Your task to perform on an android device: set an alarm Image 0: 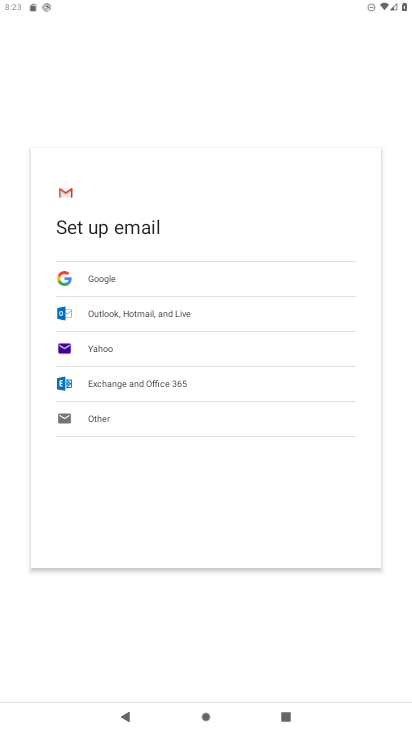
Step 0: press home button
Your task to perform on an android device: set an alarm Image 1: 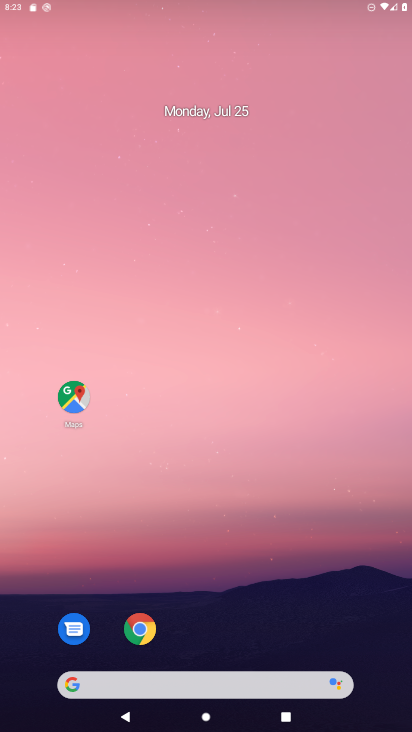
Step 1: drag from (263, 647) to (260, 79)
Your task to perform on an android device: set an alarm Image 2: 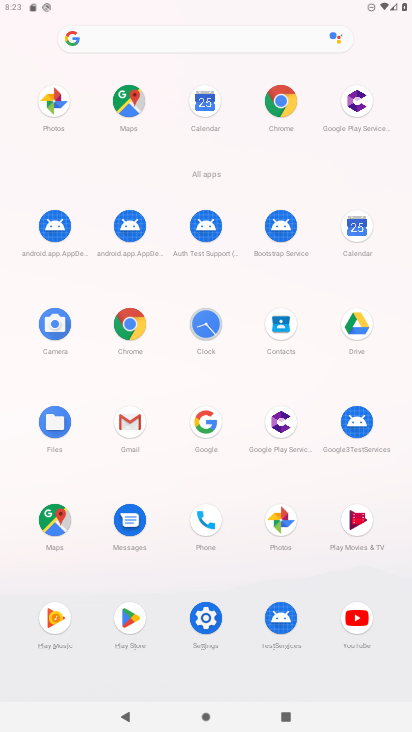
Step 2: click (198, 323)
Your task to perform on an android device: set an alarm Image 3: 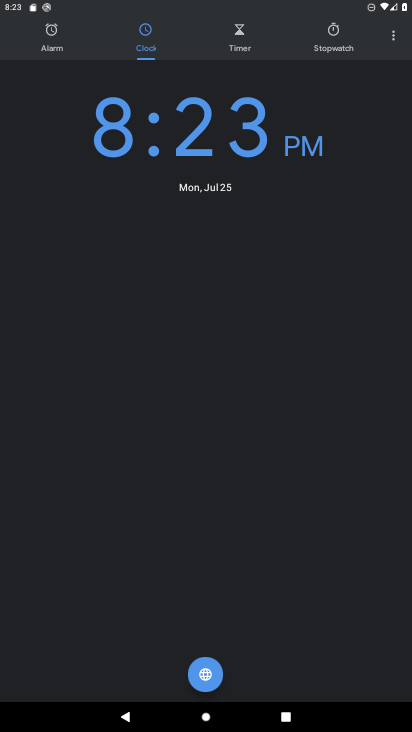
Step 3: click (46, 40)
Your task to perform on an android device: set an alarm Image 4: 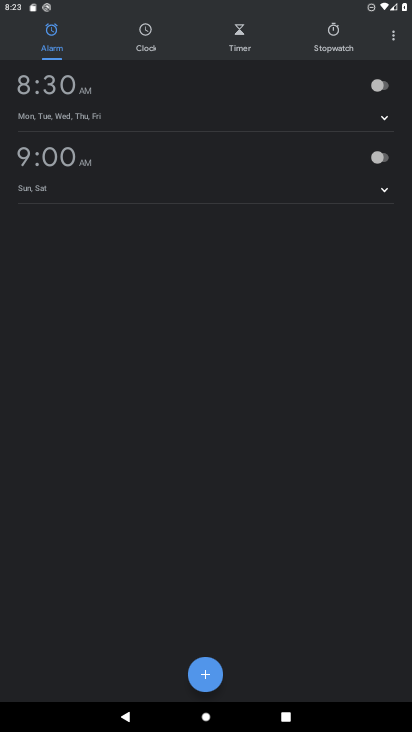
Step 4: click (212, 673)
Your task to perform on an android device: set an alarm Image 5: 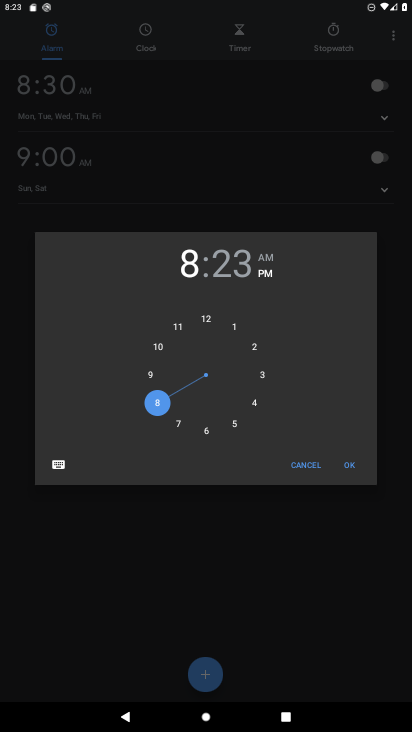
Step 5: click (206, 429)
Your task to perform on an android device: set an alarm Image 6: 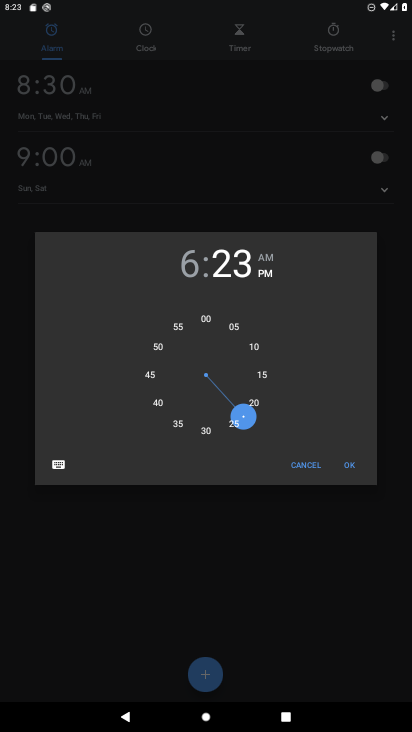
Step 6: click (206, 429)
Your task to perform on an android device: set an alarm Image 7: 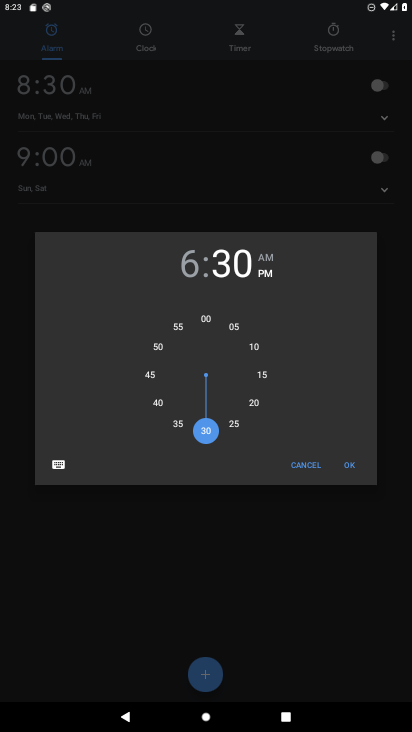
Step 7: click (347, 468)
Your task to perform on an android device: set an alarm Image 8: 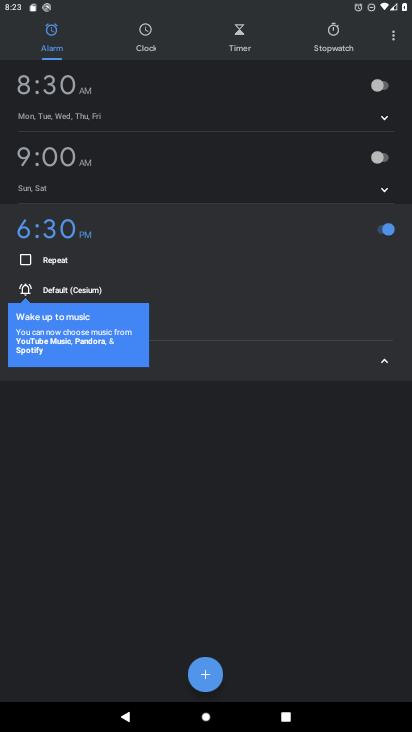
Step 8: task complete